Your task to perform on an android device: Open Google Chrome Image 0: 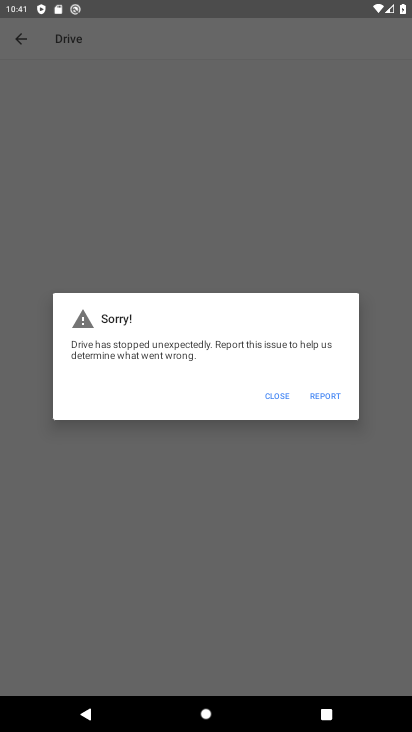
Step 0: press back button
Your task to perform on an android device: Open Google Chrome Image 1: 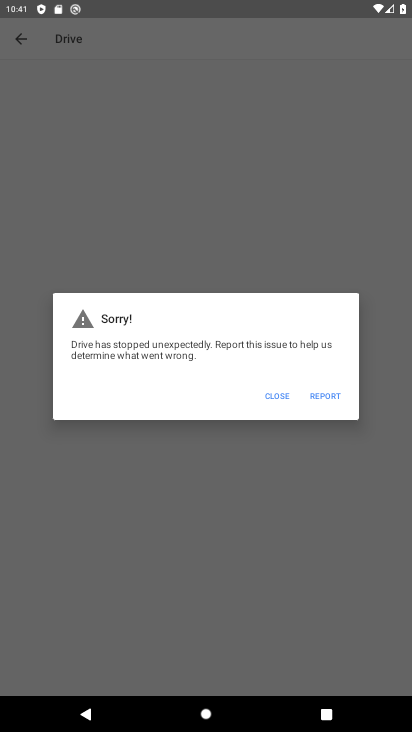
Step 1: press back button
Your task to perform on an android device: Open Google Chrome Image 2: 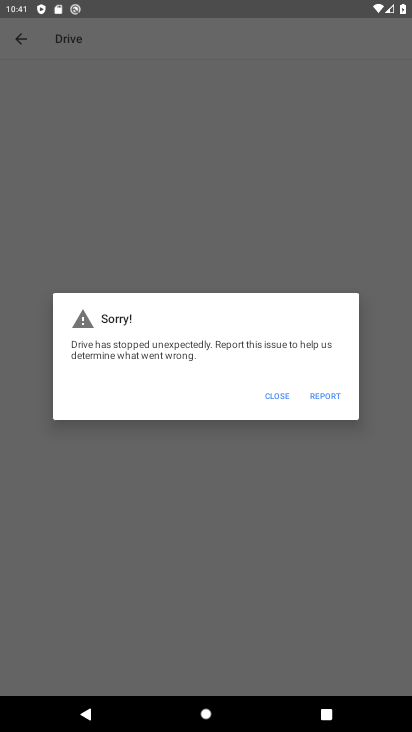
Step 2: press home button
Your task to perform on an android device: Open Google Chrome Image 3: 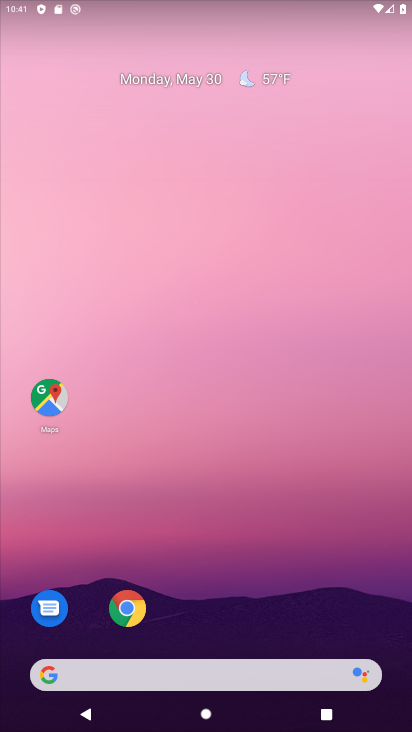
Step 3: drag from (265, 531) to (205, 0)
Your task to perform on an android device: Open Google Chrome Image 4: 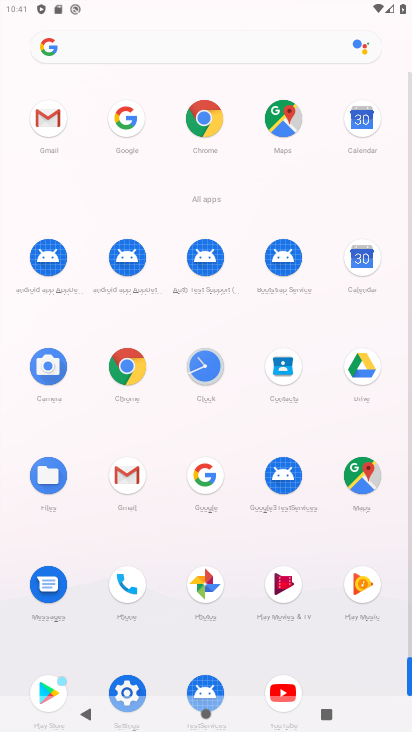
Step 4: click (127, 363)
Your task to perform on an android device: Open Google Chrome Image 5: 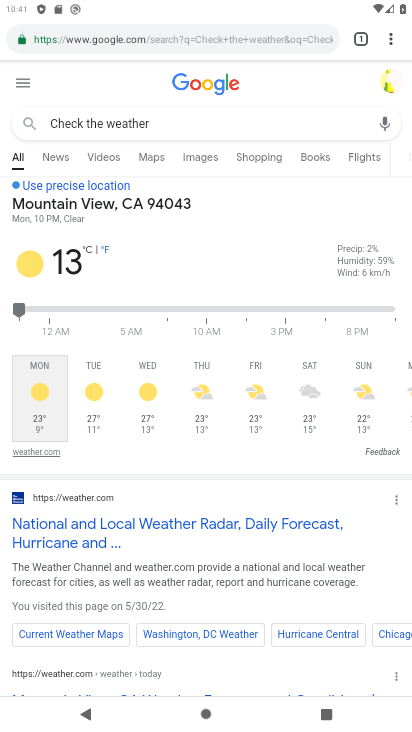
Step 5: task complete